Your task to perform on an android device: How do I get to the nearest Home Depot? Image 0: 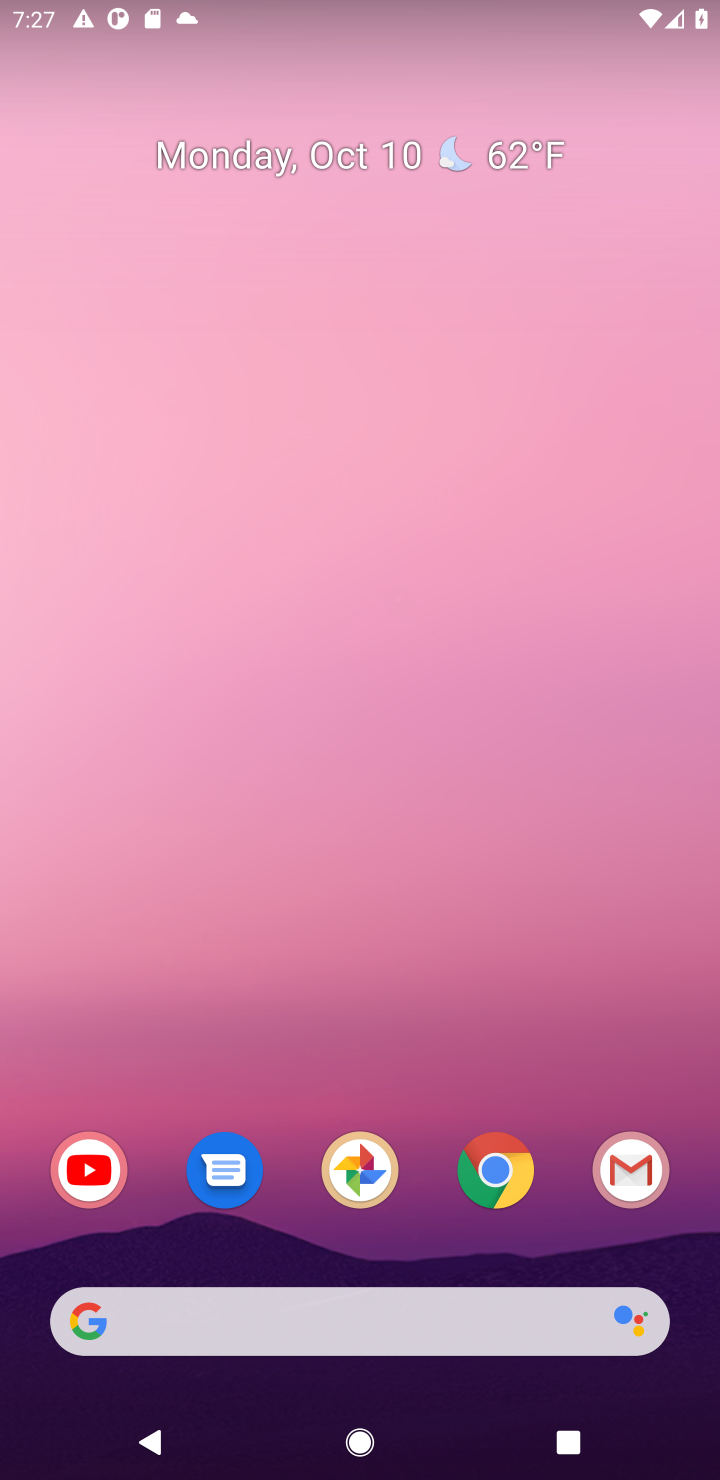
Step 0: click (500, 1191)
Your task to perform on an android device: How do I get to the nearest Home Depot? Image 1: 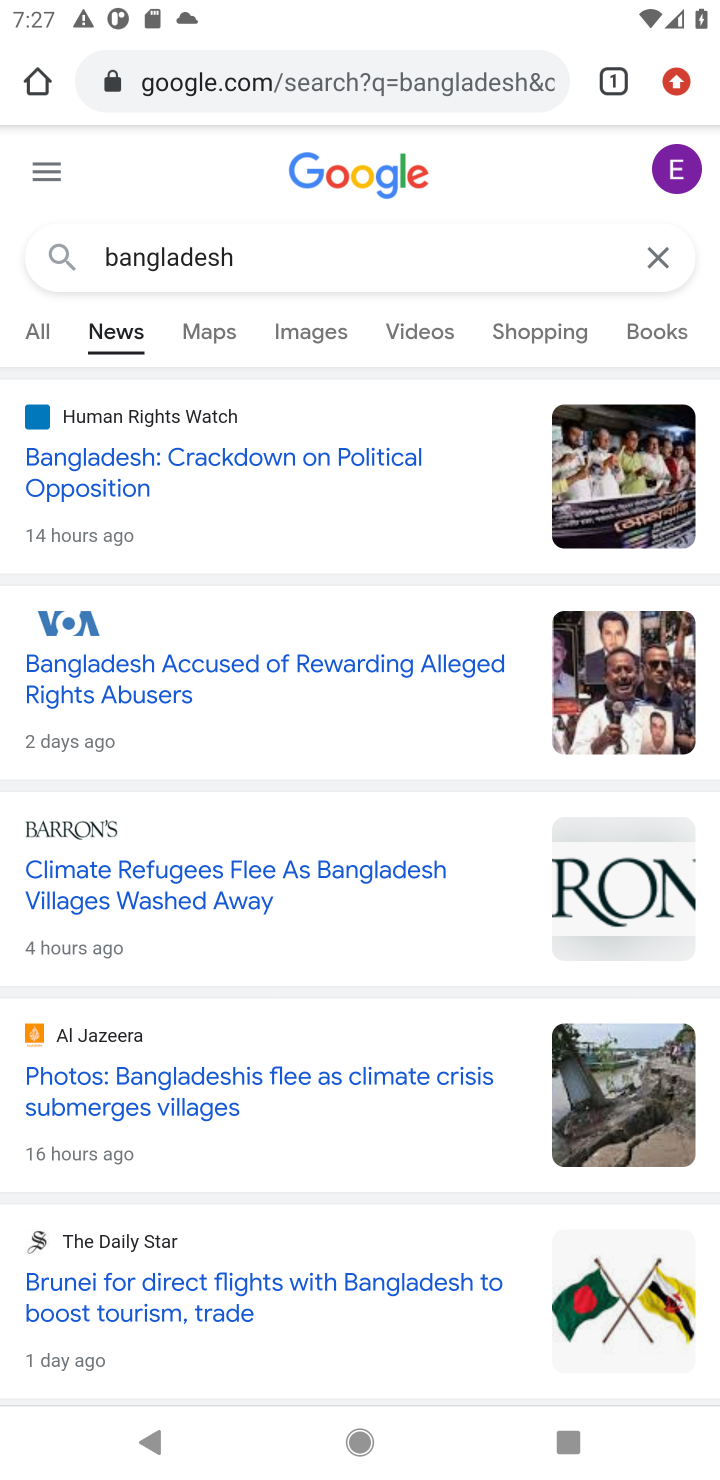
Step 1: click (362, 79)
Your task to perform on an android device: How do I get to the nearest Home Depot? Image 2: 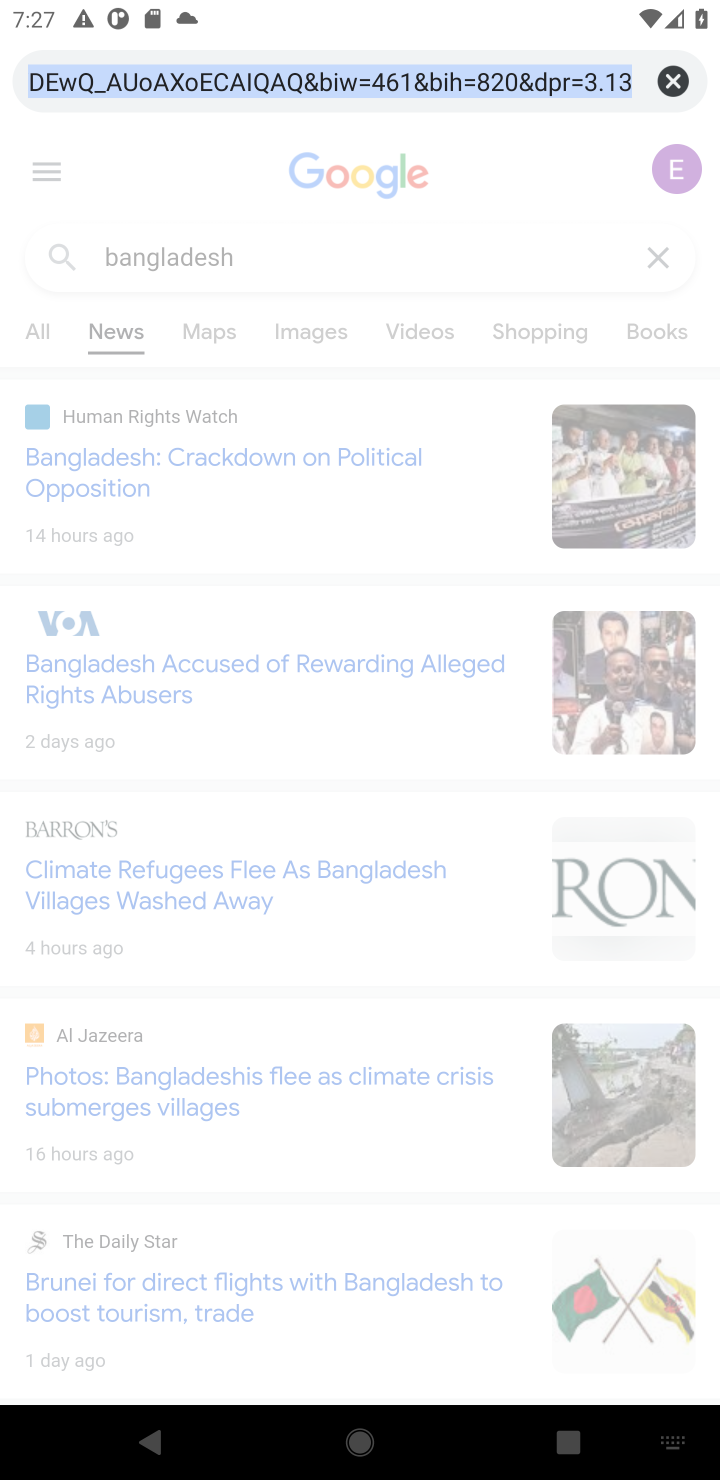
Step 2: type "directions to nearest home depot"
Your task to perform on an android device: How do I get to the nearest Home Depot? Image 3: 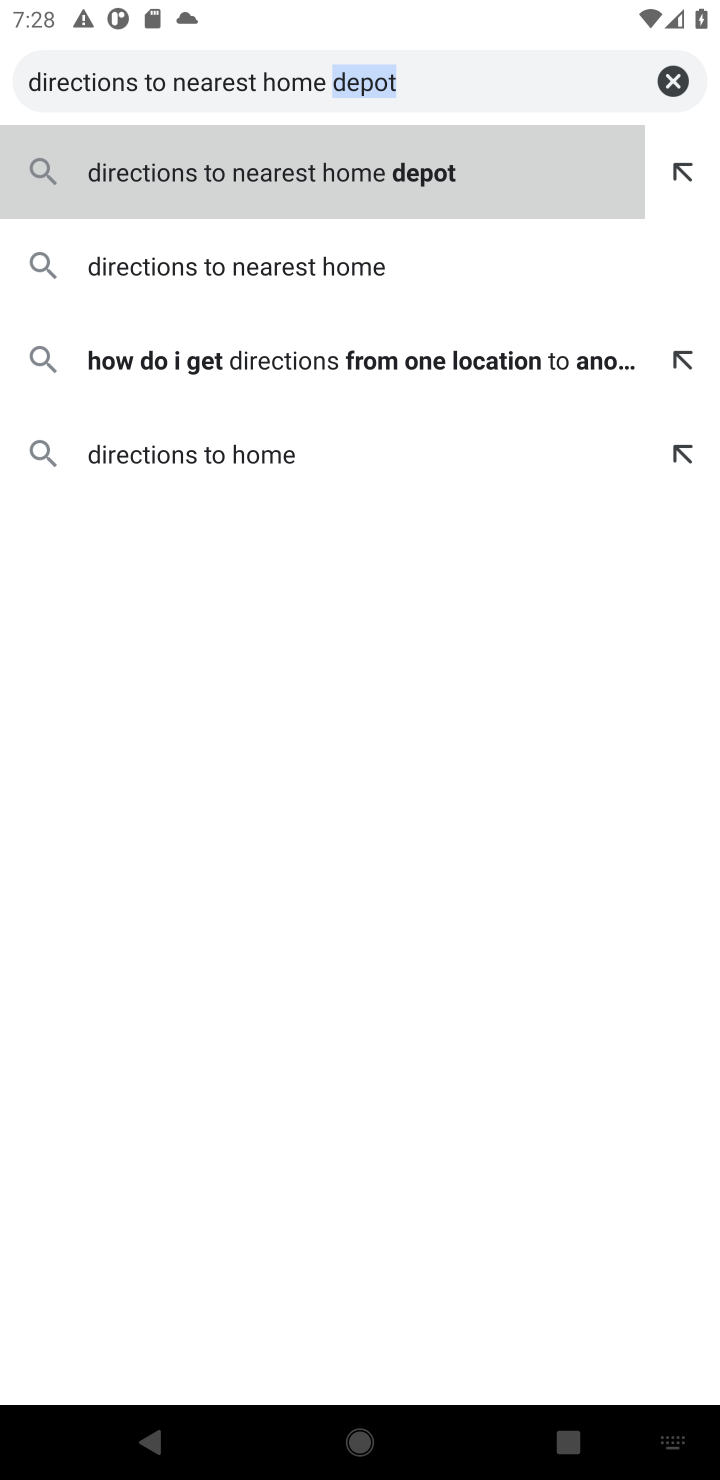
Step 3: click (489, 193)
Your task to perform on an android device: How do I get to the nearest Home Depot? Image 4: 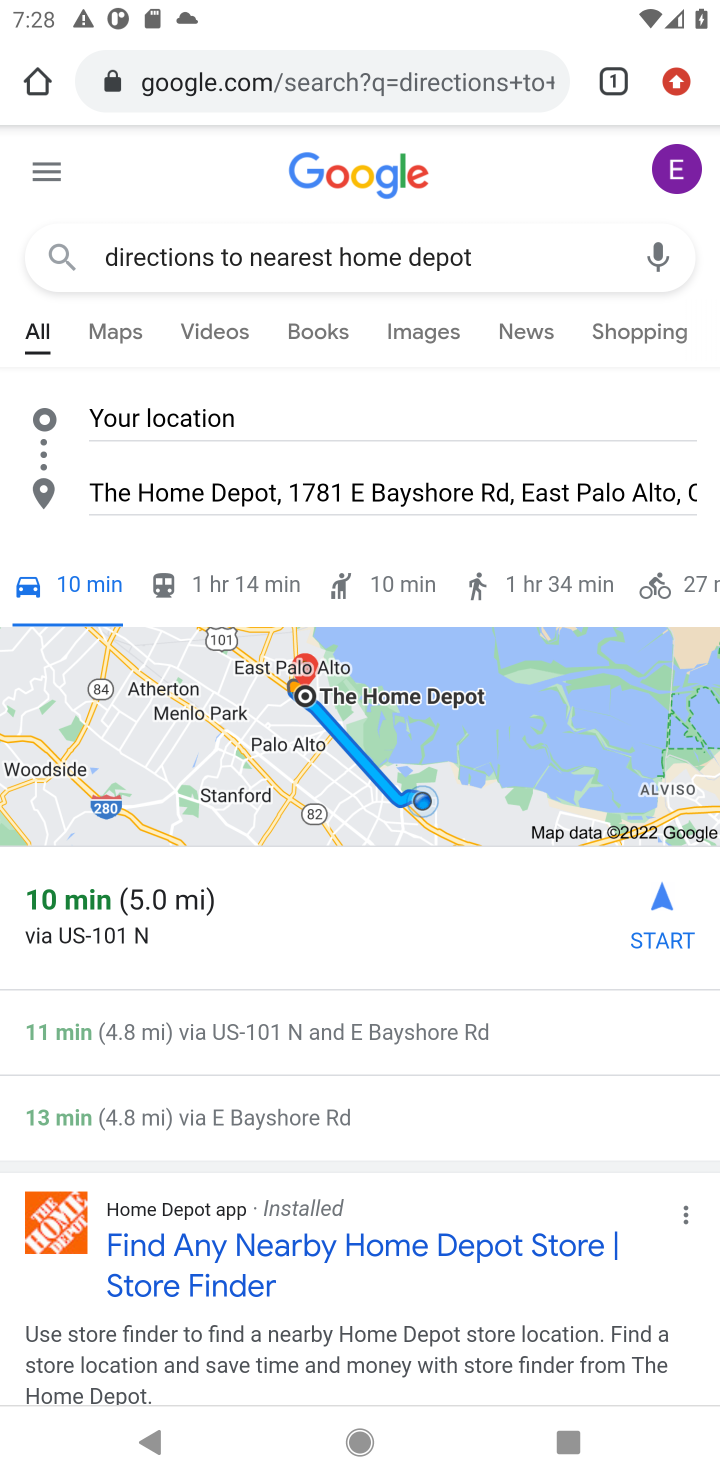
Step 4: click (664, 904)
Your task to perform on an android device: How do I get to the nearest Home Depot? Image 5: 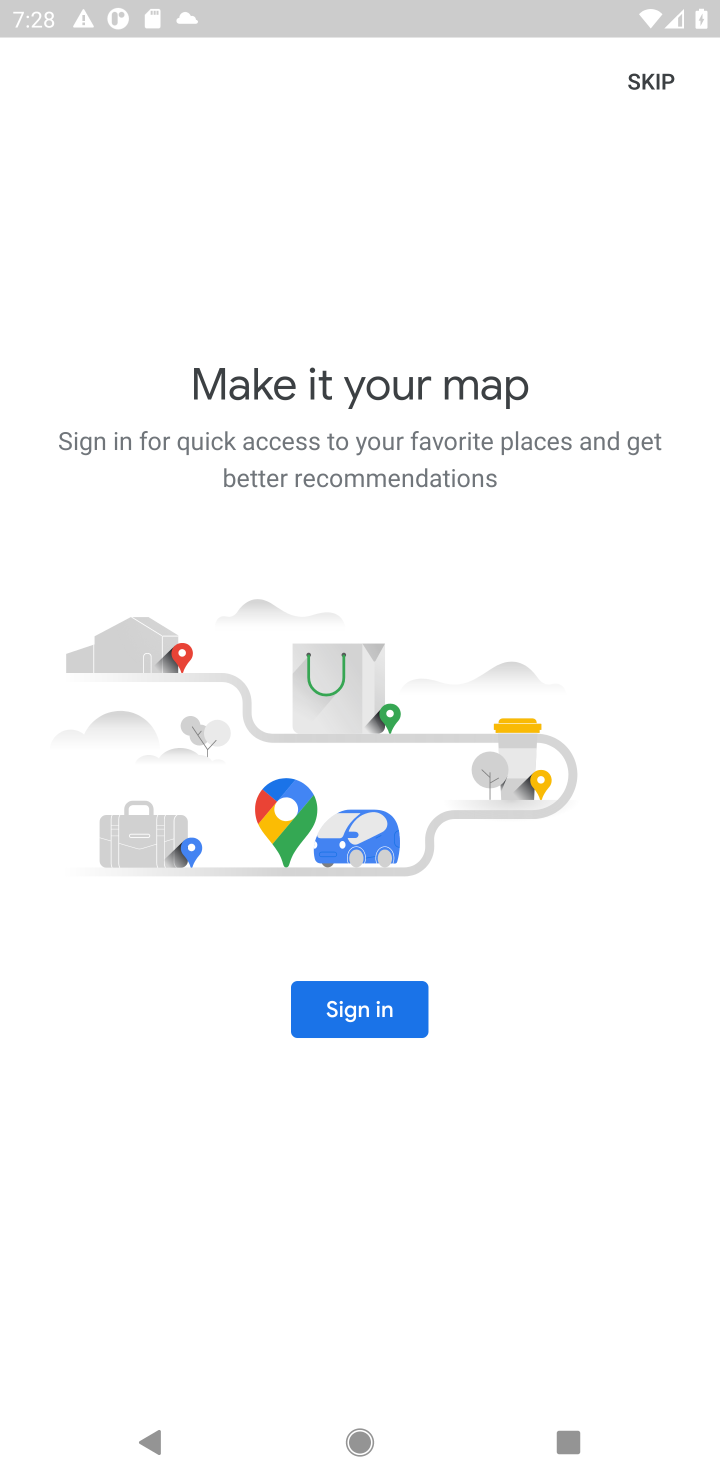
Step 5: click (651, 79)
Your task to perform on an android device: How do I get to the nearest Home Depot? Image 6: 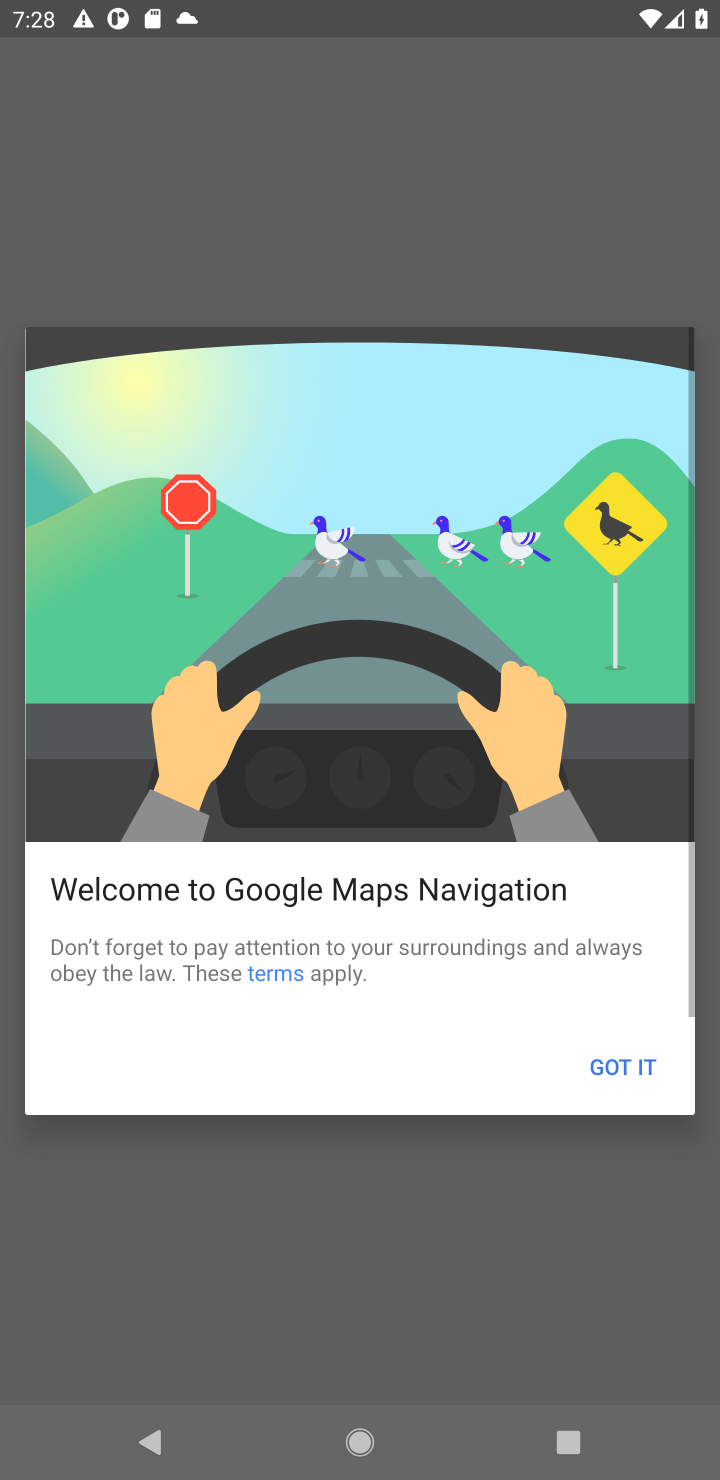
Step 6: click (607, 1068)
Your task to perform on an android device: How do I get to the nearest Home Depot? Image 7: 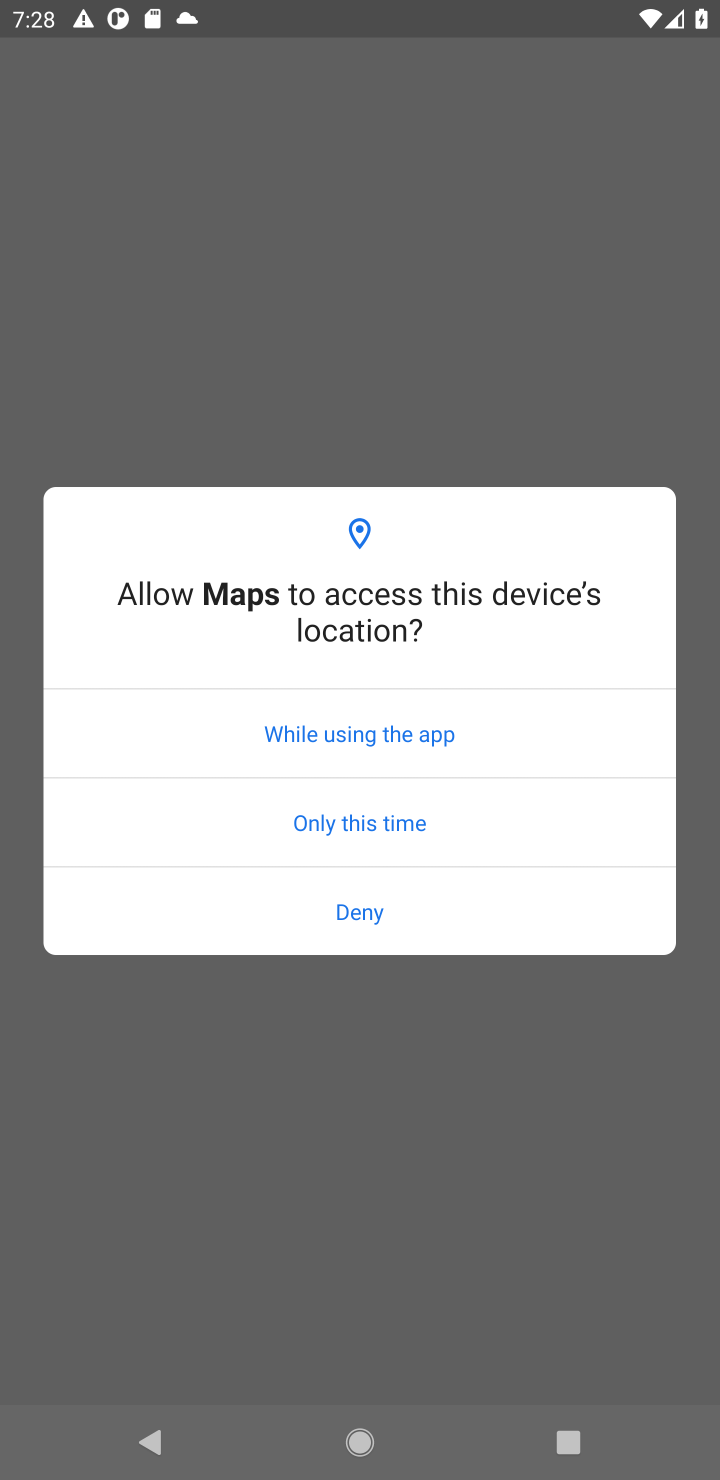
Step 7: click (390, 737)
Your task to perform on an android device: How do I get to the nearest Home Depot? Image 8: 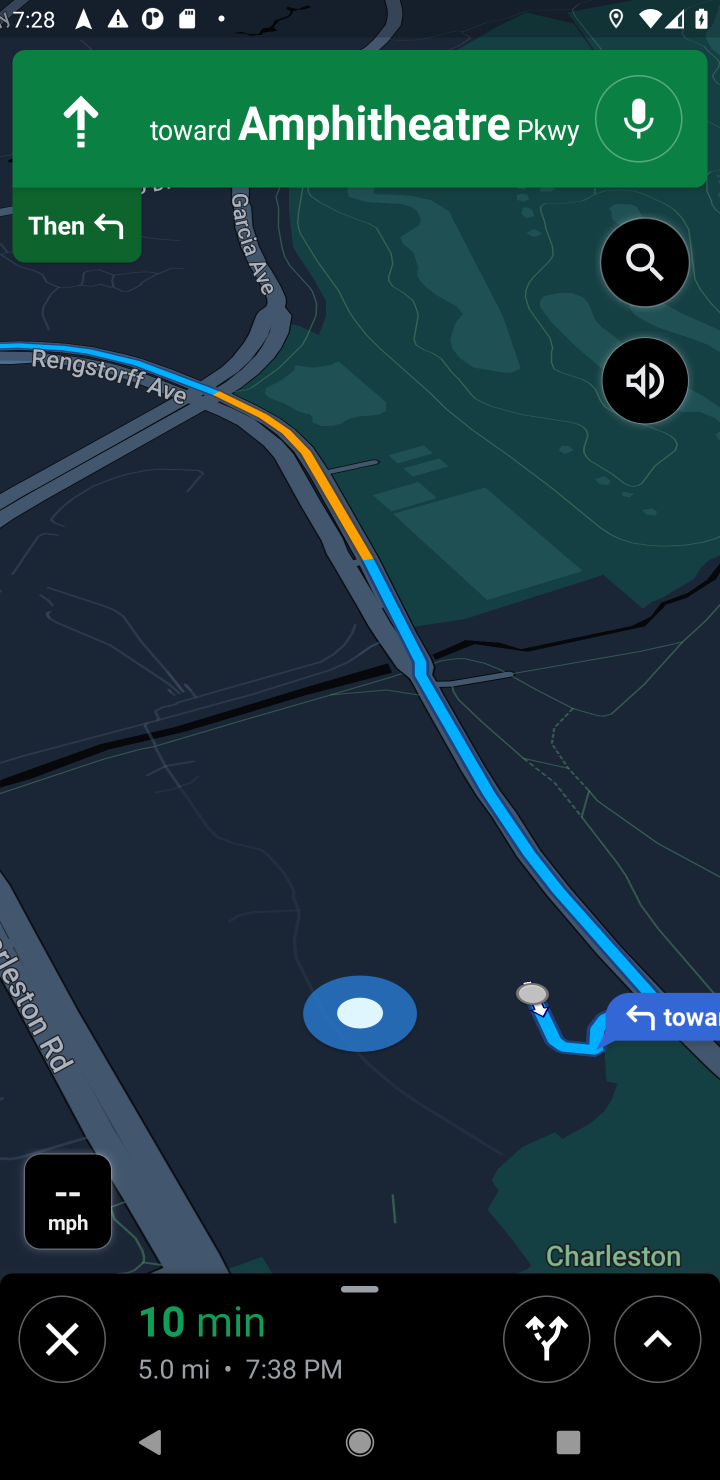
Step 8: task complete